Your task to perform on an android device: star an email in the gmail app Image 0: 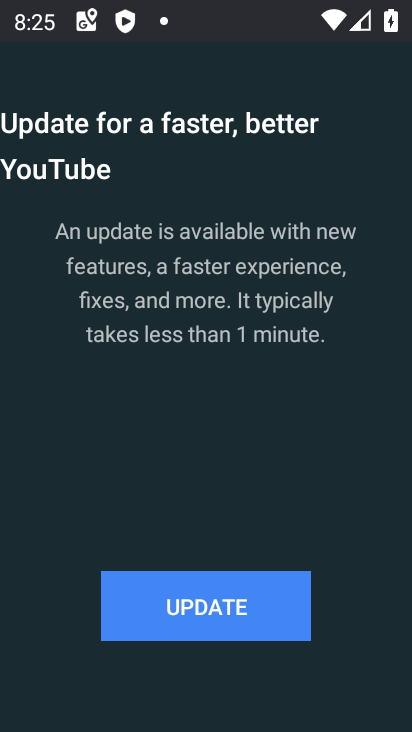
Step 0: press home button
Your task to perform on an android device: star an email in the gmail app Image 1: 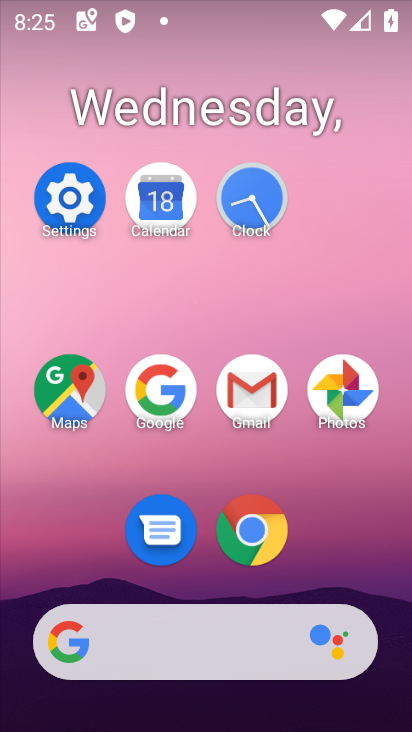
Step 1: click (254, 395)
Your task to perform on an android device: star an email in the gmail app Image 2: 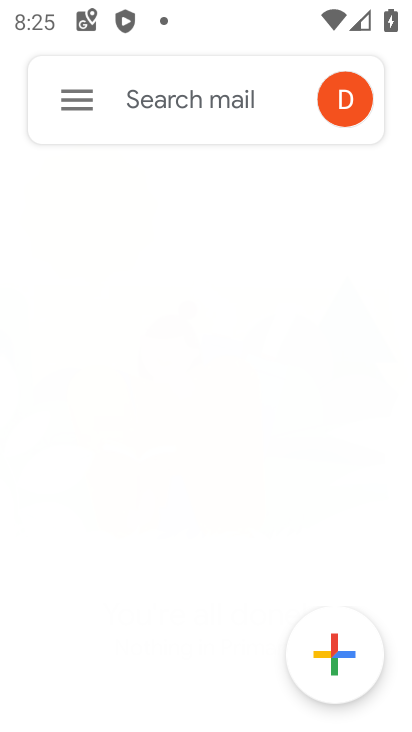
Step 2: click (59, 106)
Your task to perform on an android device: star an email in the gmail app Image 3: 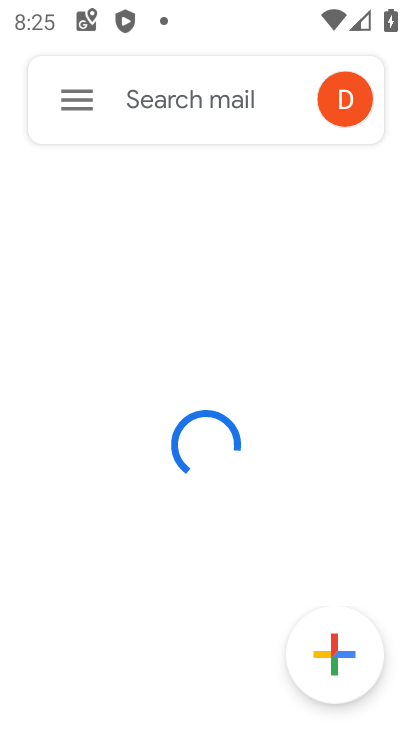
Step 3: click (77, 118)
Your task to perform on an android device: star an email in the gmail app Image 4: 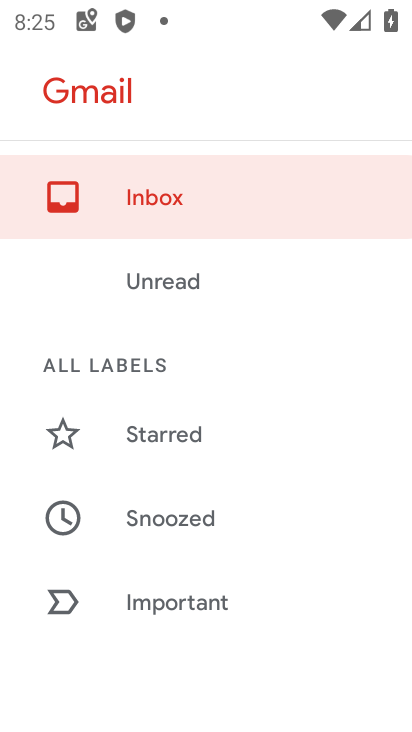
Step 4: drag from (235, 534) to (290, 196)
Your task to perform on an android device: star an email in the gmail app Image 5: 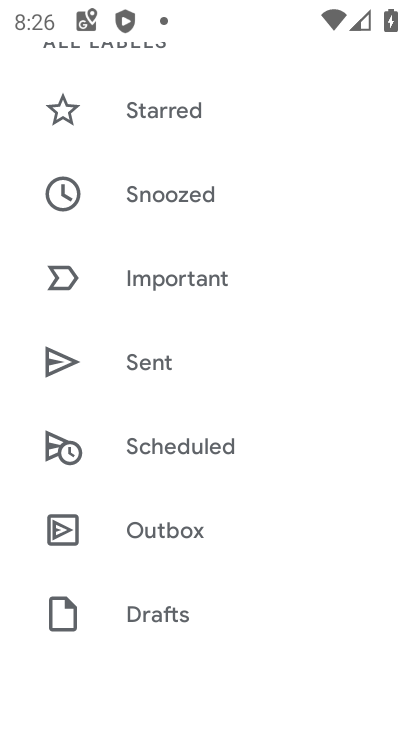
Step 5: drag from (224, 528) to (267, 184)
Your task to perform on an android device: star an email in the gmail app Image 6: 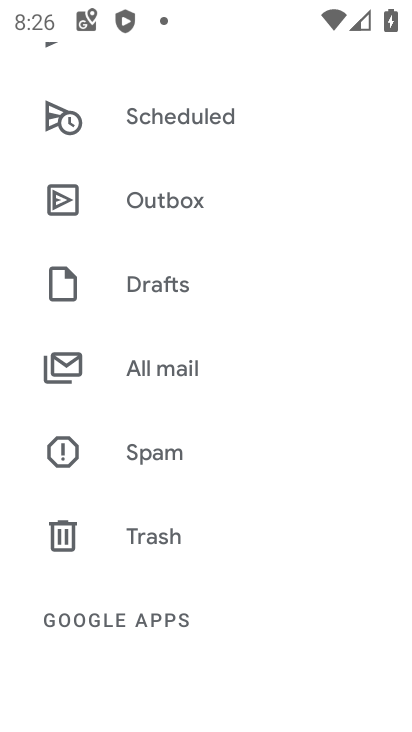
Step 6: click (222, 359)
Your task to perform on an android device: star an email in the gmail app Image 7: 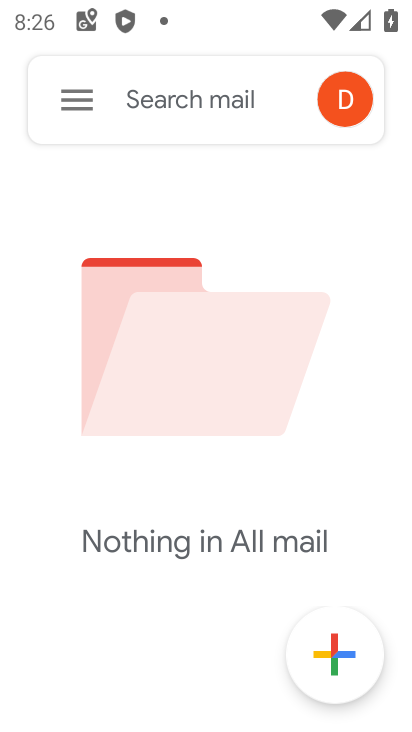
Step 7: task complete